Your task to perform on an android device: turn off smart reply in the gmail app Image 0: 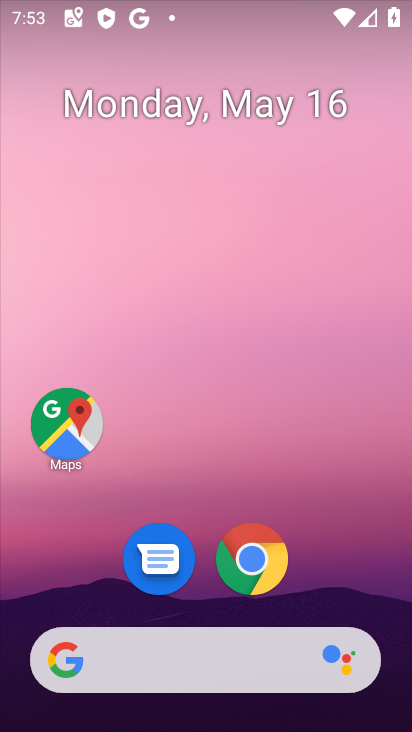
Step 0: drag from (340, 584) to (298, 212)
Your task to perform on an android device: turn off smart reply in the gmail app Image 1: 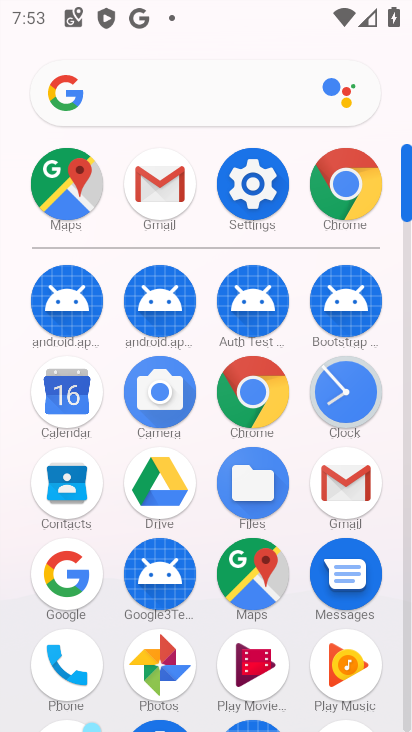
Step 1: click (349, 477)
Your task to perform on an android device: turn off smart reply in the gmail app Image 2: 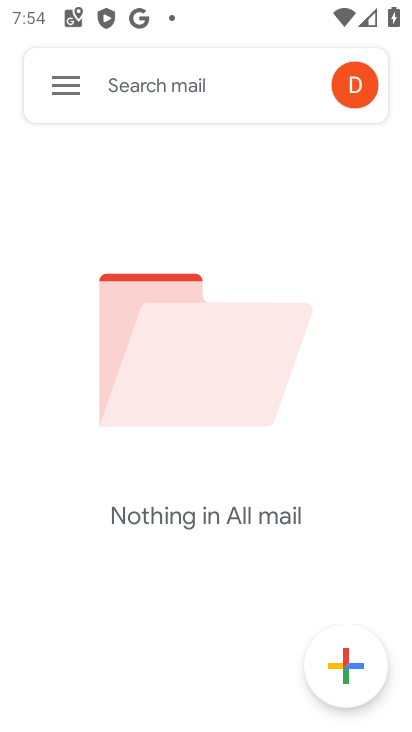
Step 2: click (60, 82)
Your task to perform on an android device: turn off smart reply in the gmail app Image 3: 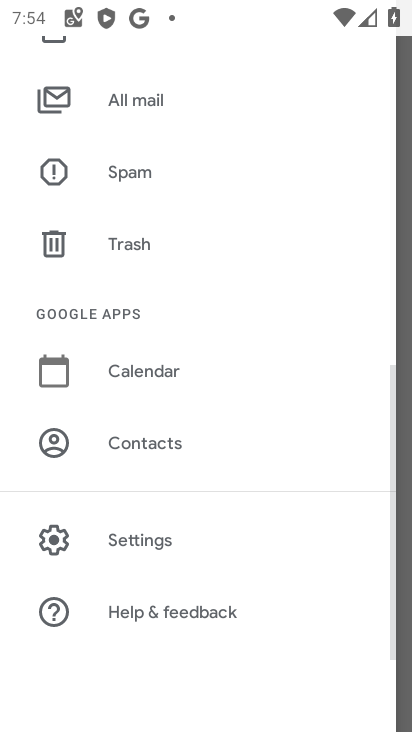
Step 3: click (179, 533)
Your task to perform on an android device: turn off smart reply in the gmail app Image 4: 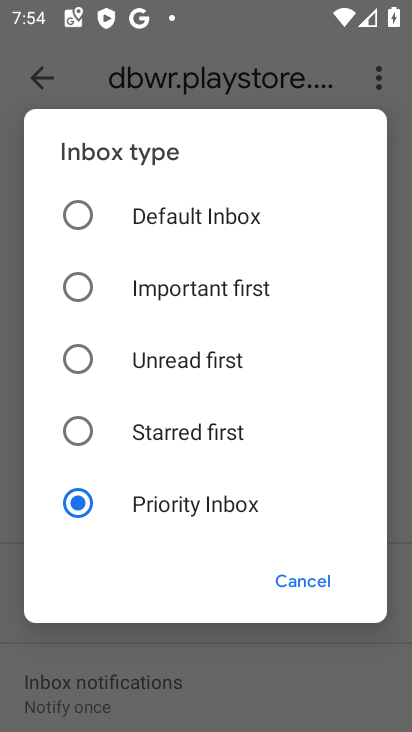
Step 4: click (294, 580)
Your task to perform on an android device: turn off smart reply in the gmail app Image 5: 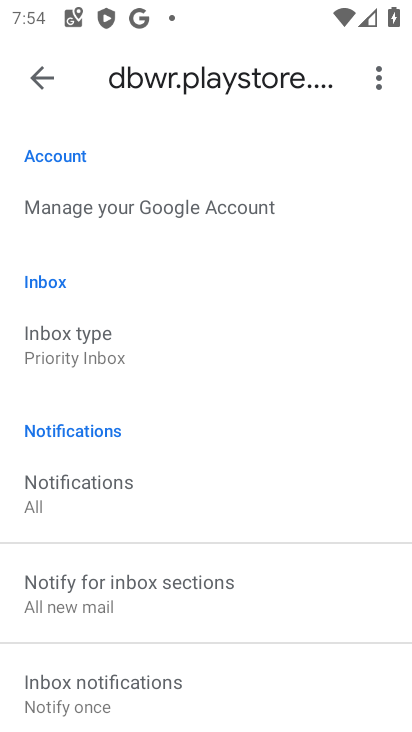
Step 5: drag from (251, 610) to (289, 263)
Your task to perform on an android device: turn off smart reply in the gmail app Image 6: 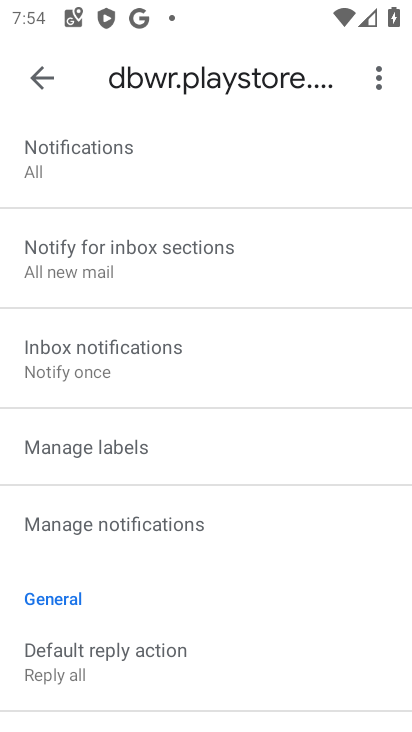
Step 6: drag from (286, 645) to (293, 277)
Your task to perform on an android device: turn off smart reply in the gmail app Image 7: 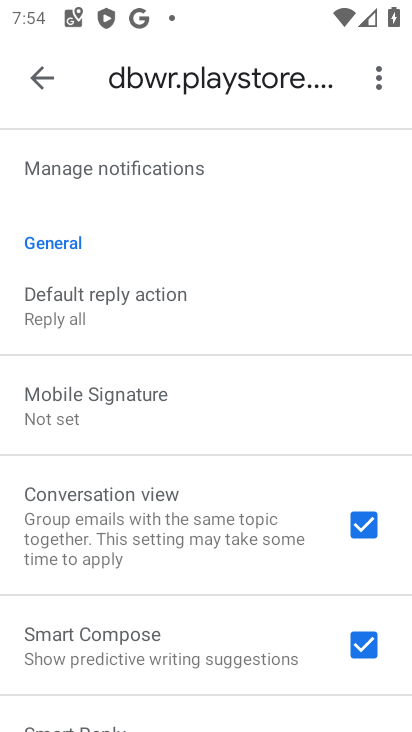
Step 7: drag from (266, 604) to (270, 281)
Your task to perform on an android device: turn off smart reply in the gmail app Image 8: 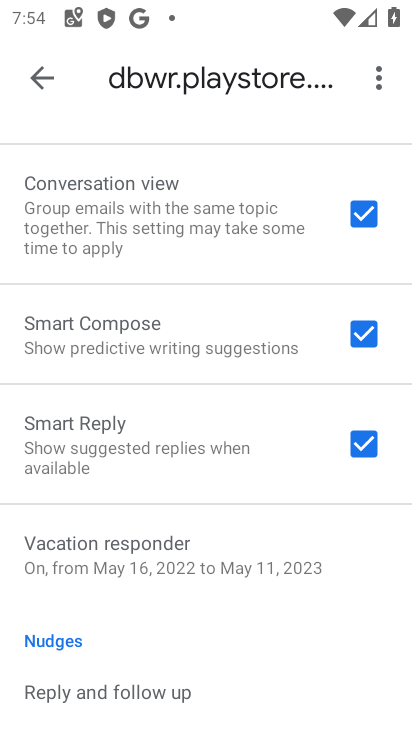
Step 8: drag from (180, 664) to (203, 357)
Your task to perform on an android device: turn off smart reply in the gmail app Image 9: 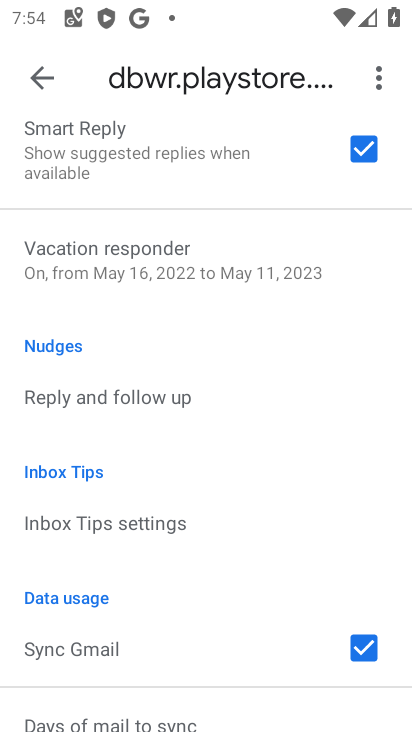
Step 9: click (369, 146)
Your task to perform on an android device: turn off smart reply in the gmail app Image 10: 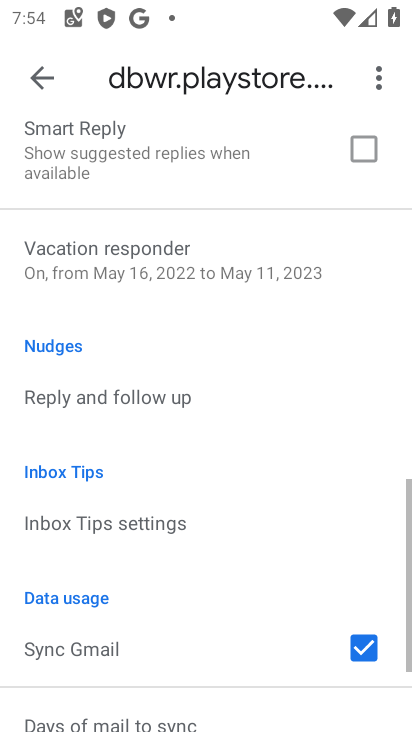
Step 10: task complete